Your task to perform on an android device: all mails in gmail Image 0: 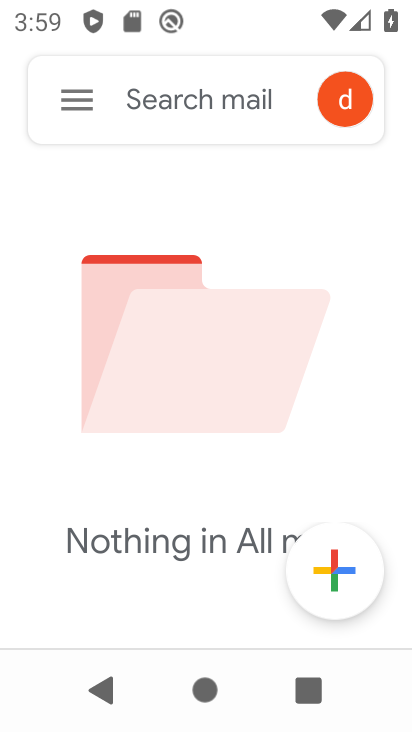
Step 0: click (83, 101)
Your task to perform on an android device: all mails in gmail Image 1: 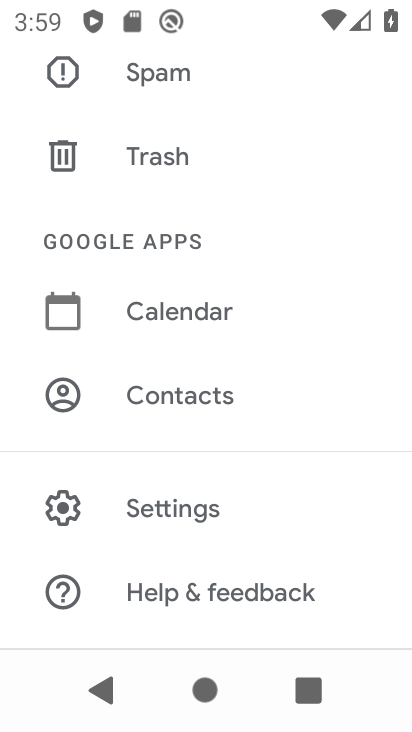
Step 1: task complete